Your task to perform on an android device: turn notification dots off Image 0: 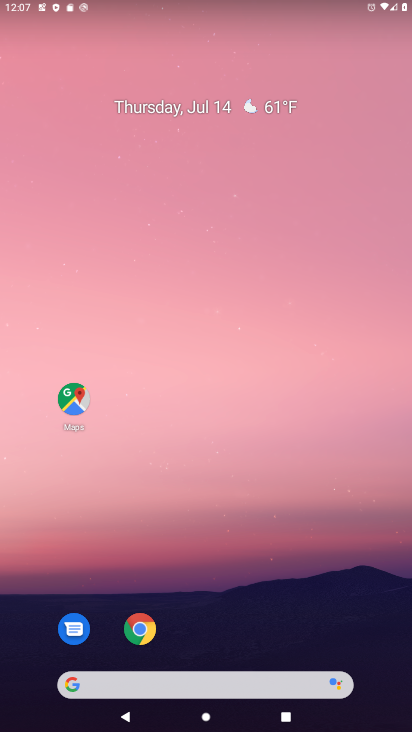
Step 0: drag from (291, 531) to (197, 92)
Your task to perform on an android device: turn notification dots off Image 1: 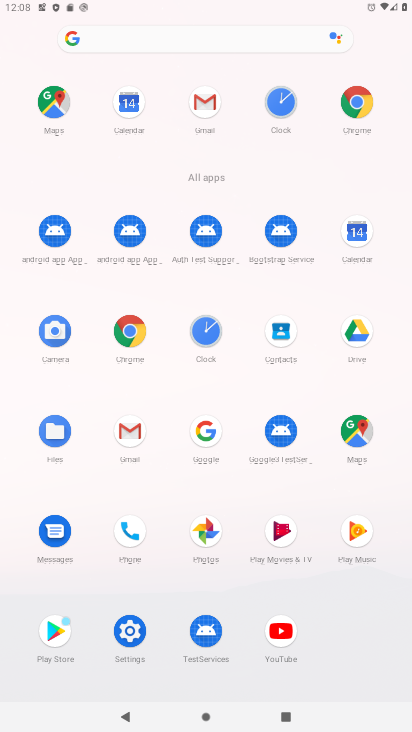
Step 1: click (133, 630)
Your task to perform on an android device: turn notification dots off Image 2: 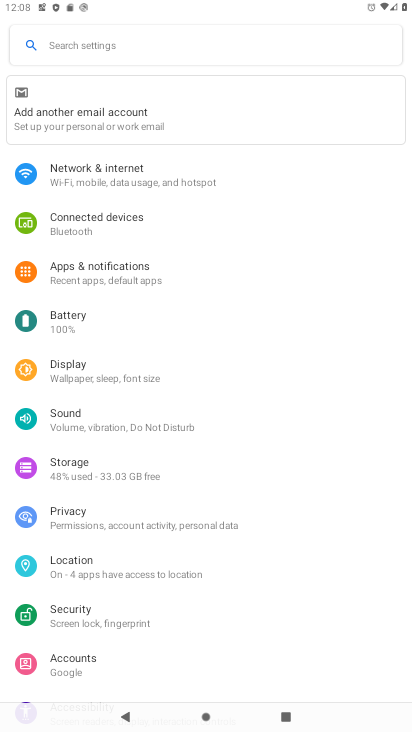
Step 2: click (101, 272)
Your task to perform on an android device: turn notification dots off Image 3: 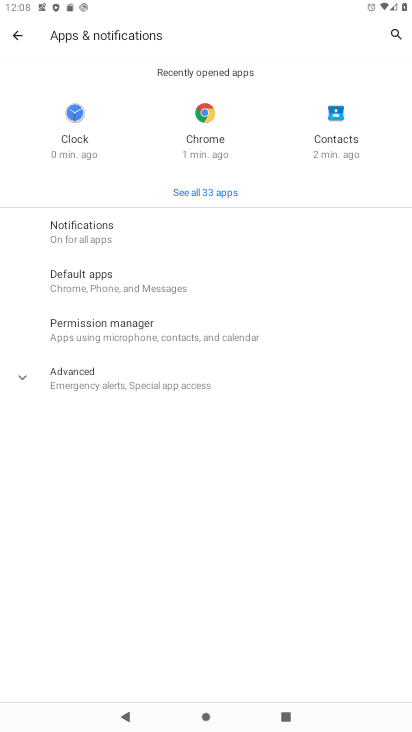
Step 3: click (69, 221)
Your task to perform on an android device: turn notification dots off Image 4: 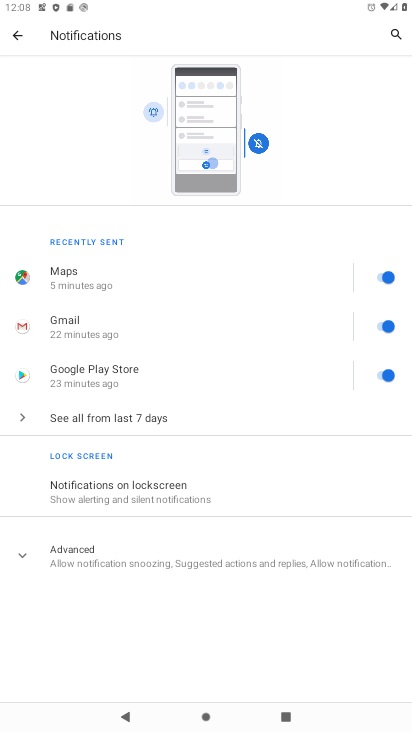
Step 4: click (21, 552)
Your task to perform on an android device: turn notification dots off Image 5: 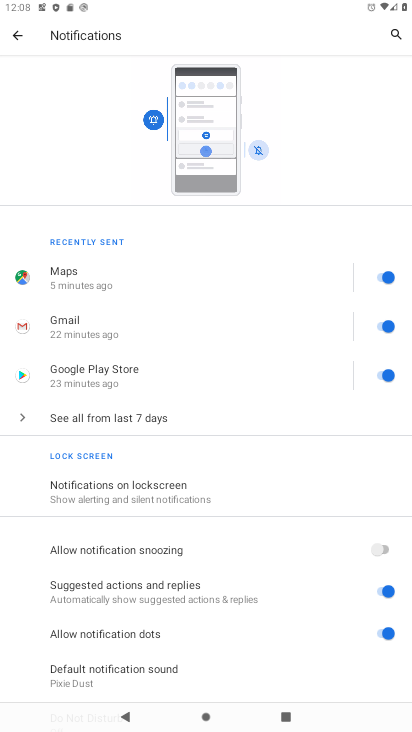
Step 5: drag from (232, 646) to (203, 439)
Your task to perform on an android device: turn notification dots off Image 6: 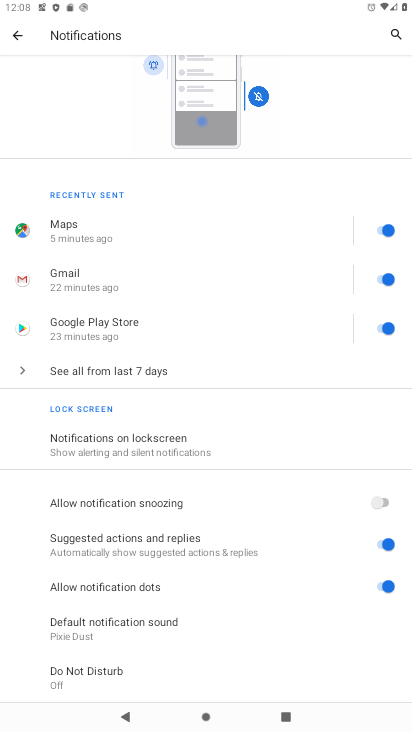
Step 6: click (390, 583)
Your task to perform on an android device: turn notification dots off Image 7: 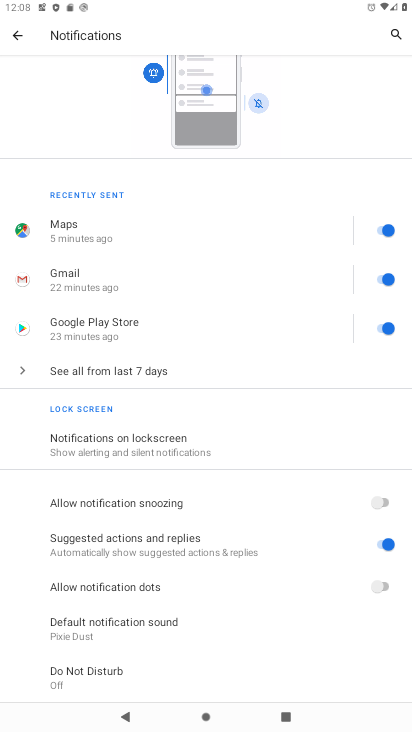
Step 7: task complete